Your task to perform on an android device: turn on the 24-hour format for clock Image 0: 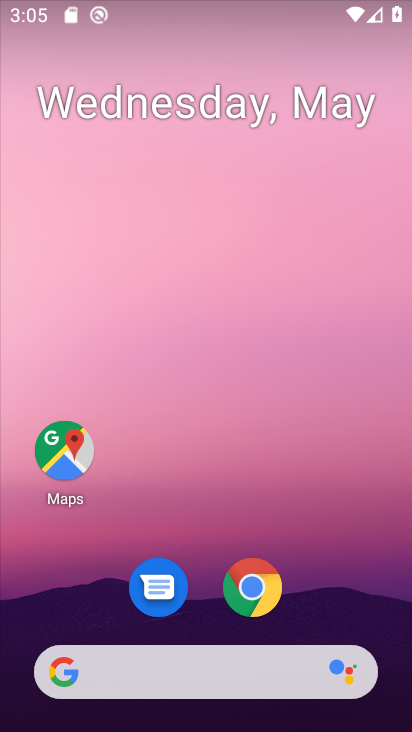
Step 0: drag from (335, 645) to (406, 197)
Your task to perform on an android device: turn on the 24-hour format for clock Image 1: 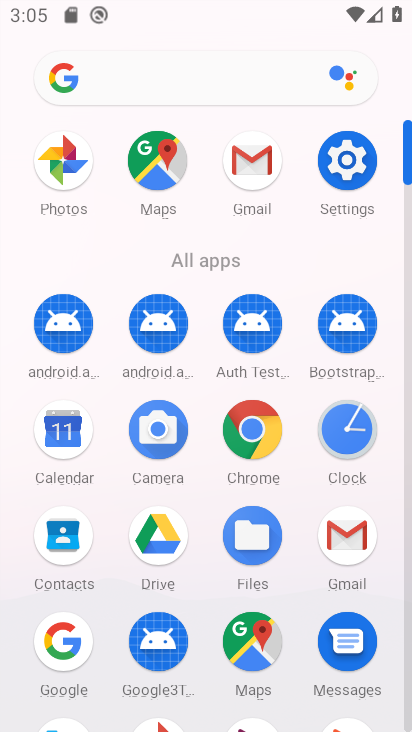
Step 1: click (351, 461)
Your task to perform on an android device: turn on the 24-hour format for clock Image 2: 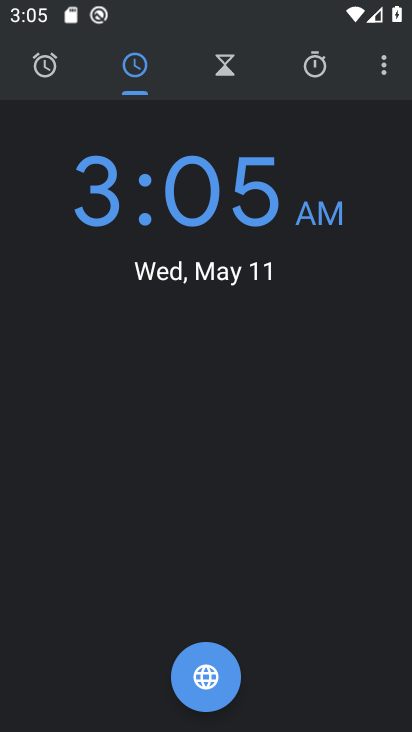
Step 2: click (385, 76)
Your task to perform on an android device: turn on the 24-hour format for clock Image 3: 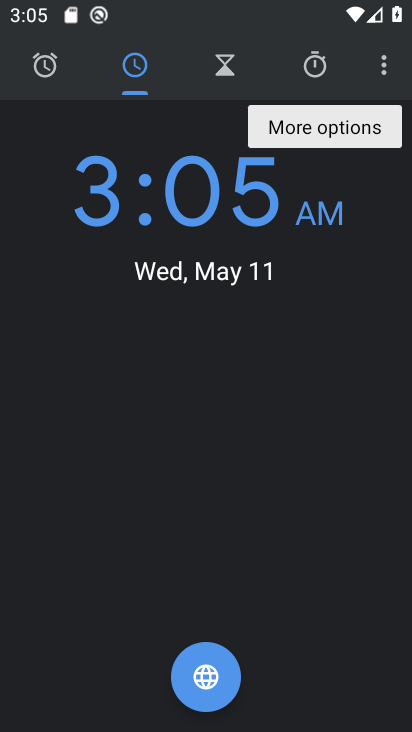
Step 3: click (385, 76)
Your task to perform on an android device: turn on the 24-hour format for clock Image 4: 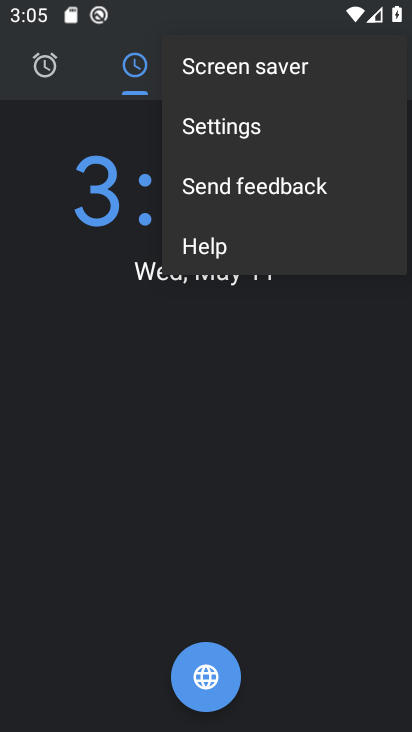
Step 4: click (326, 126)
Your task to perform on an android device: turn on the 24-hour format for clock Image 5: 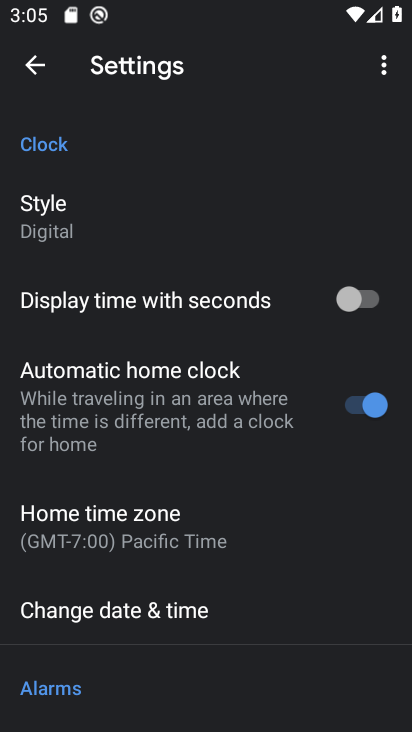
Step 5: click (240, 611)
Your task to perform on an android device: turn on the 24-hour format for clock Image 6: 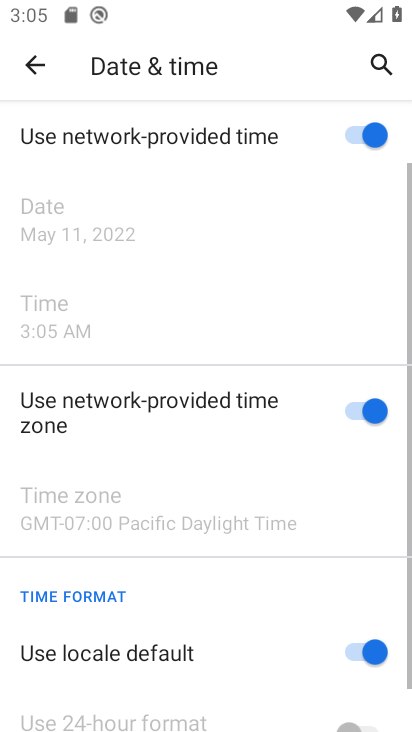
Step 6: drag from (202, 676) to (297, 358)
Your task to perform on an android device: turn on the 24-hour format for clock Image 7: 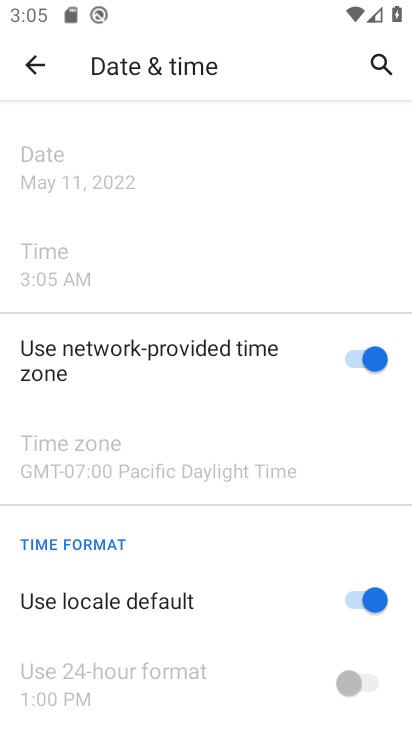
Step 7: click (356, 601)
Your task to perform on an android device: turn on the 24-hour format for clock Image 8: 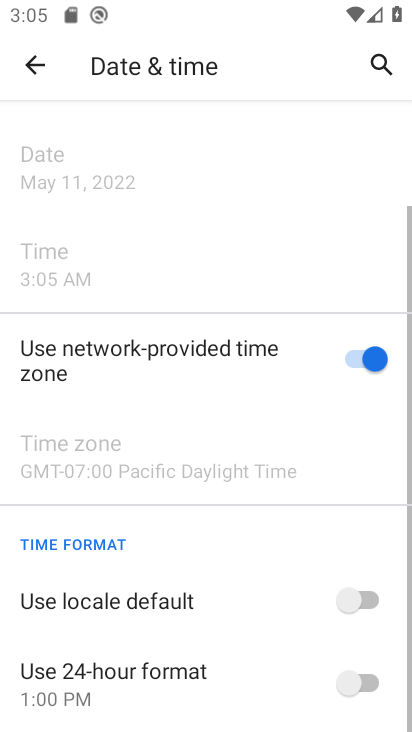
Step 8: click (373, 676)
Your task to perform on an android device: turn on the 24-hour format for clock Image 9: 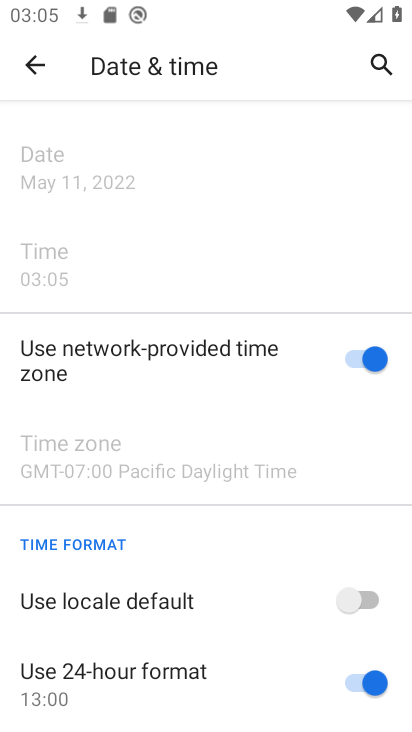
Step 9: task complete